Your task to perform on an android device: Go to accessibility settings Image 0: 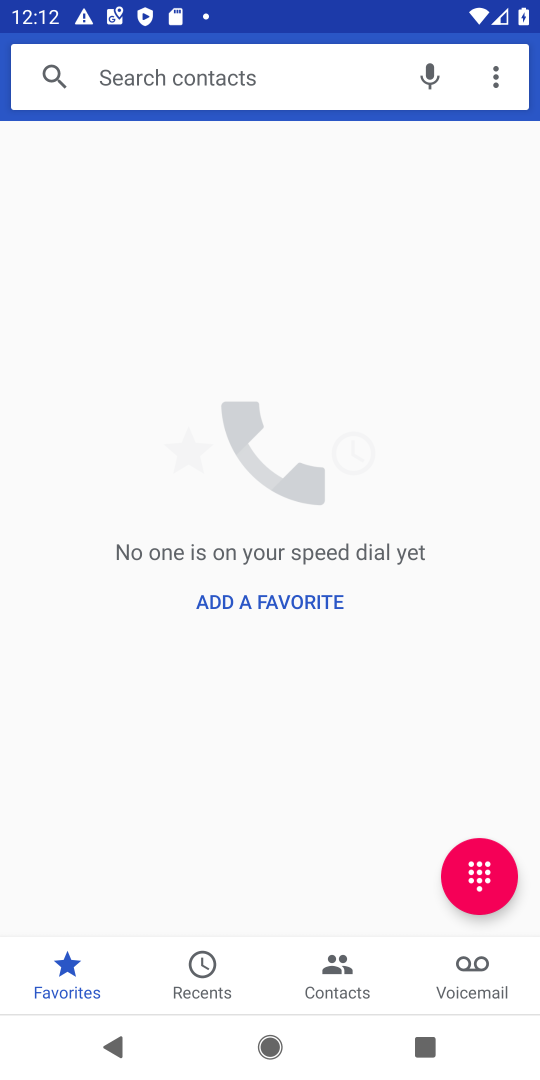
Step 0: press home button
Your task to perform on an android device: Go to accessibility settings Image 1: 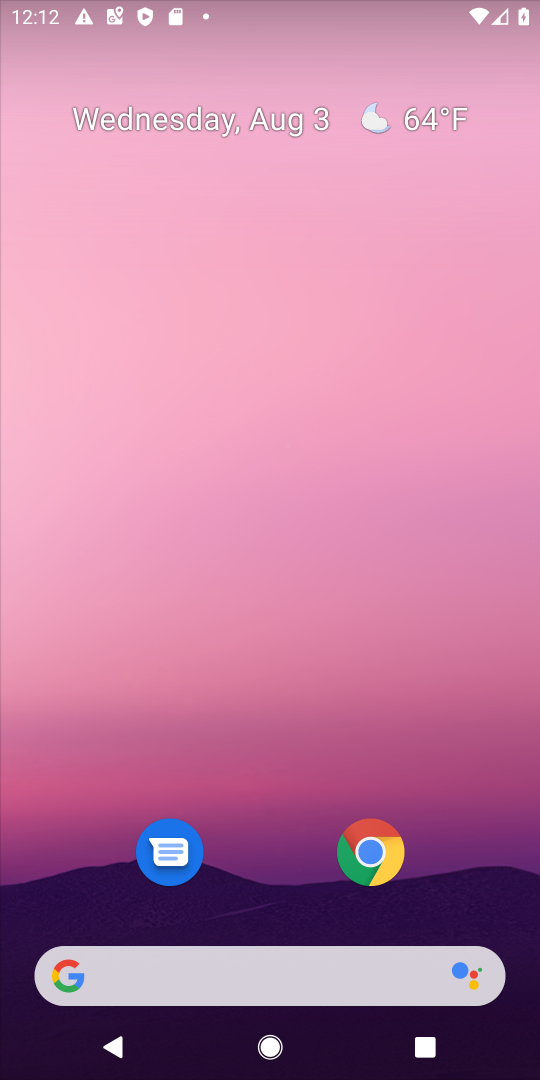
Step 1: drag from (504, 883) to (288, 14)
Your task to perform on an android device: Go to accessibility settings Image 2: 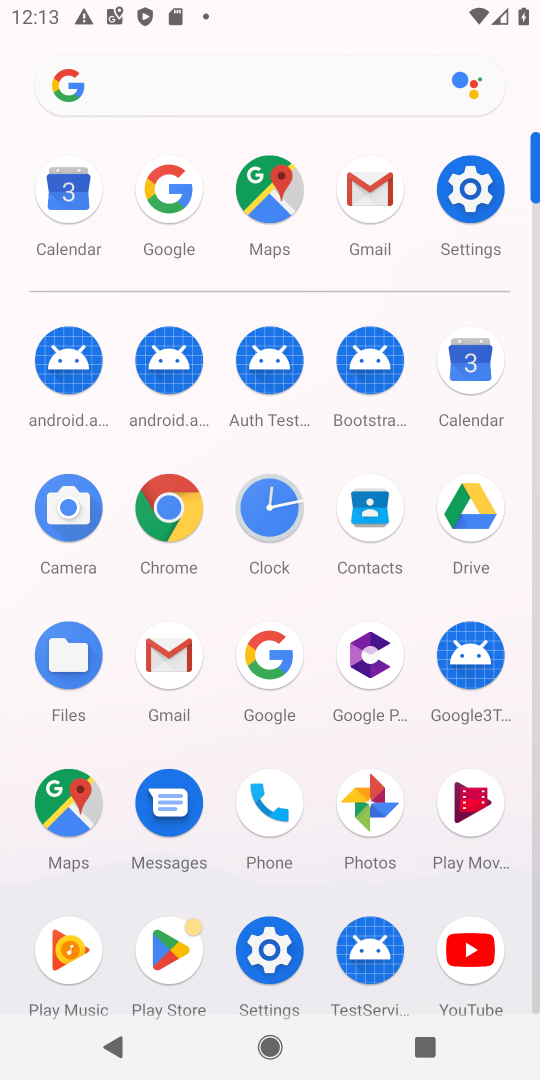
Step 2: click (285, 943)
Your task to perform on an android device: Go to accessibility settings Image 3: 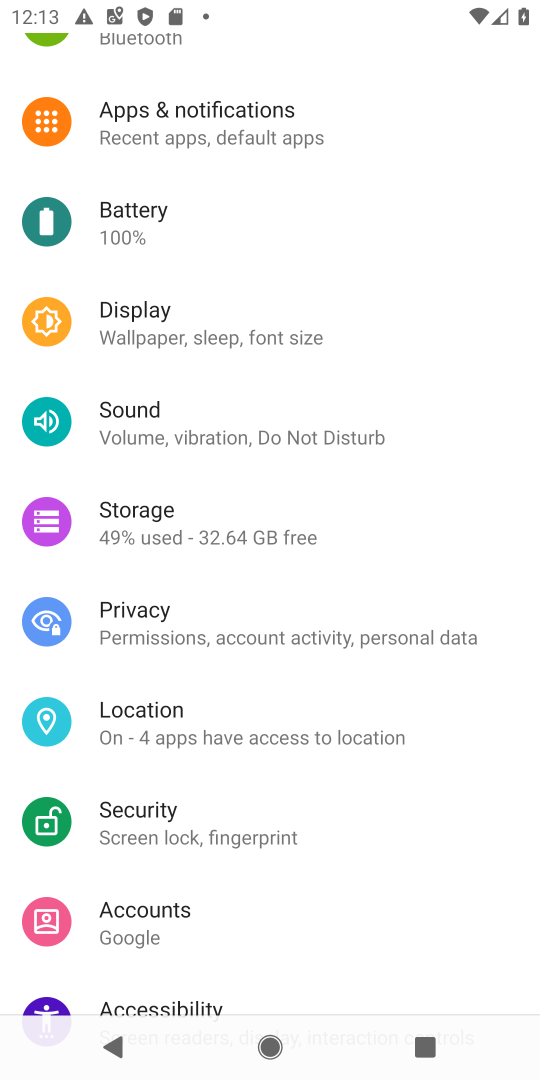
Step 3: click (198, 995)
Your task to perform on an android device: Go to accessibility settings Image 4: 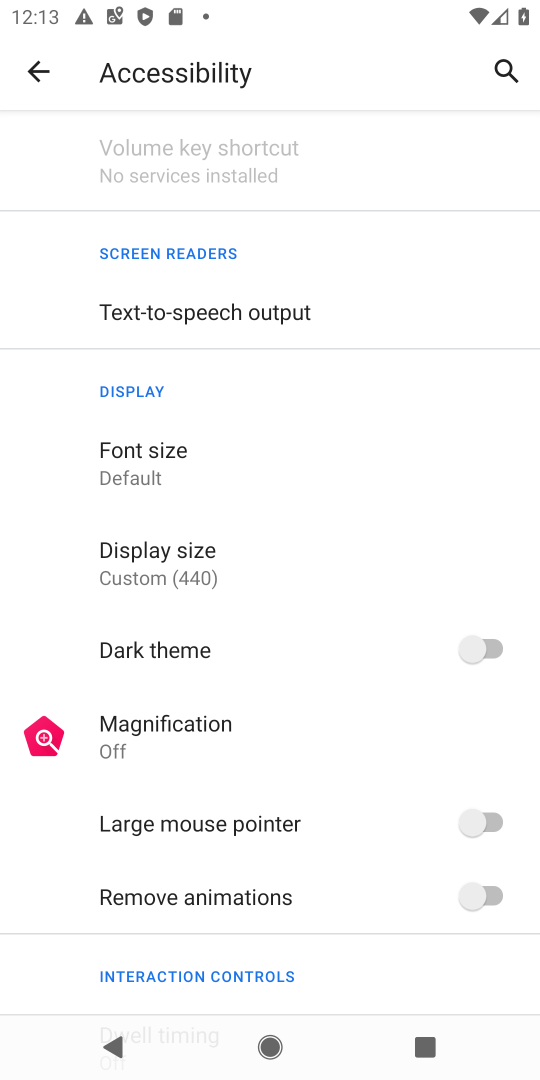
Step 4: task complete